Your task to perform on an android device: What's the latest news in astrophysics? Image 0: 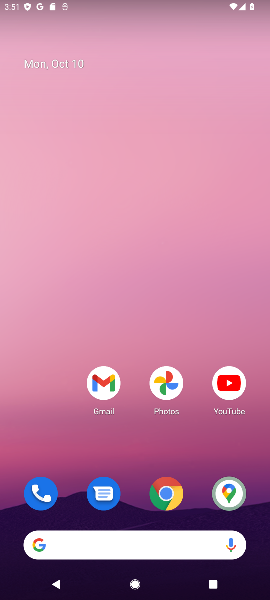
Step 0: click (94, 546)
Your task to perform on an android device: What's the latest news in astrophysics? Image 1: 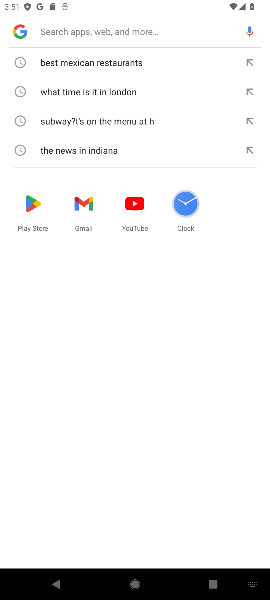
Step 1: type "latest news in astrophysics"
Your task to perform on an android device: What's the latest news in astrophysics? Image 2: 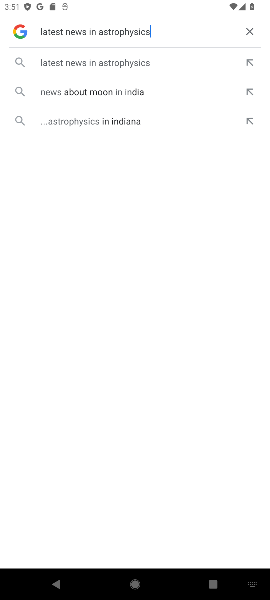
Step 2: click (190, 55)
Your task to perform on an android device: What's the latest news in astrophysics? Image 3: 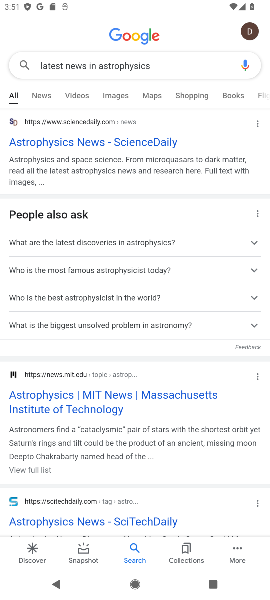
Step 3: click (108, 141)
Your task to perform on an android device: What's the latest news in astrophysics? Image 4: 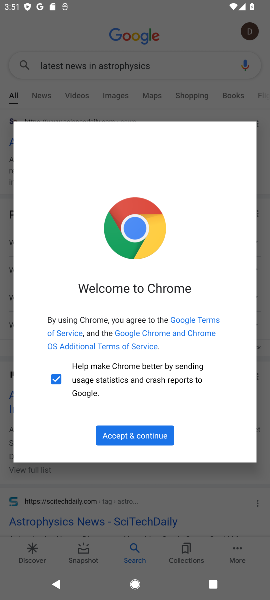
Step 4: task complete